Your task to perform on an android device: toggle translation in the chrome app Image 0: 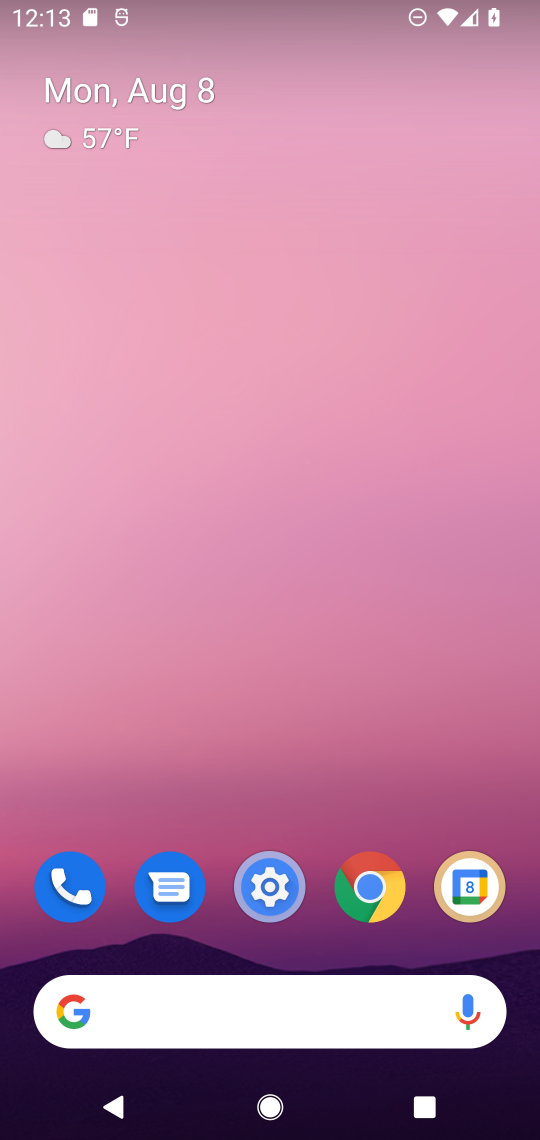
Step 0: click (370, 885)
Your task to perform on an android device: toggle translation in the chrome app Image 1: 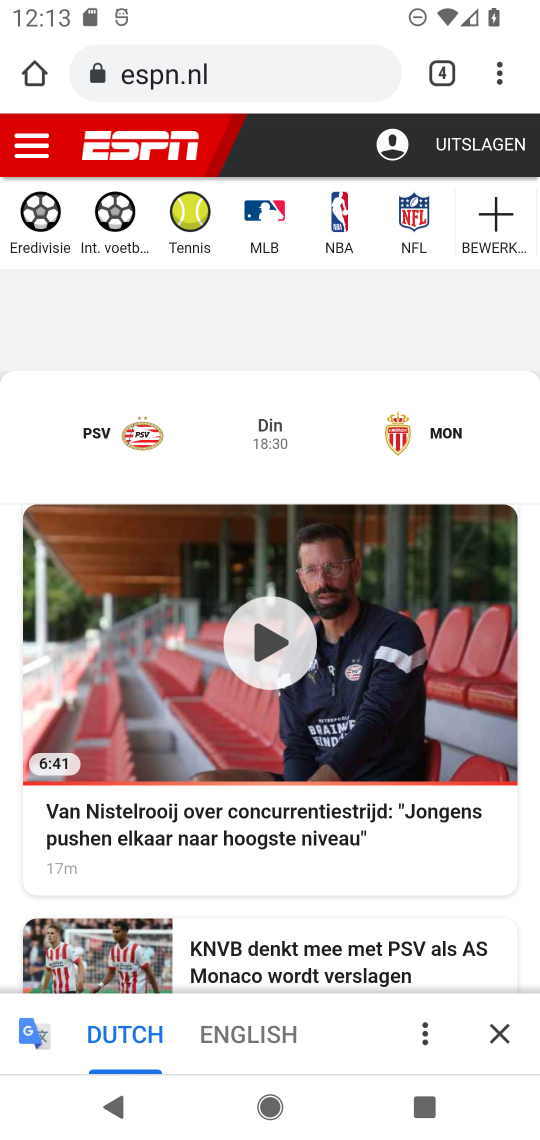
Step 1: click (503, 70)
Your task to perform on an android device: toggle translation in the chrome app Image 2: 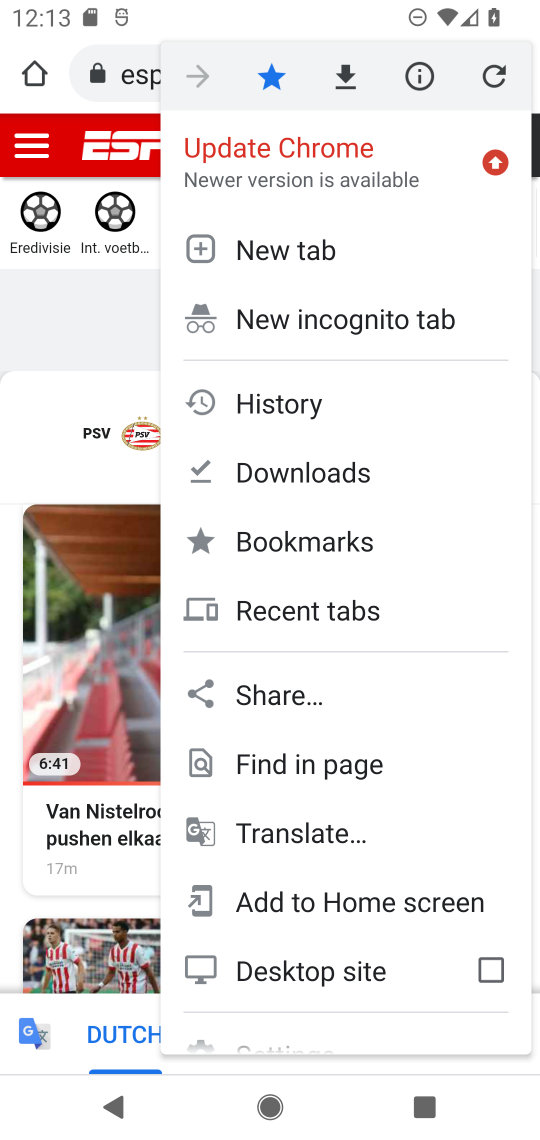
Step 2: drag from (364, 833) to (332, 314)
Your task to perform on an android device: toggle translation in the chrome app Image 3: 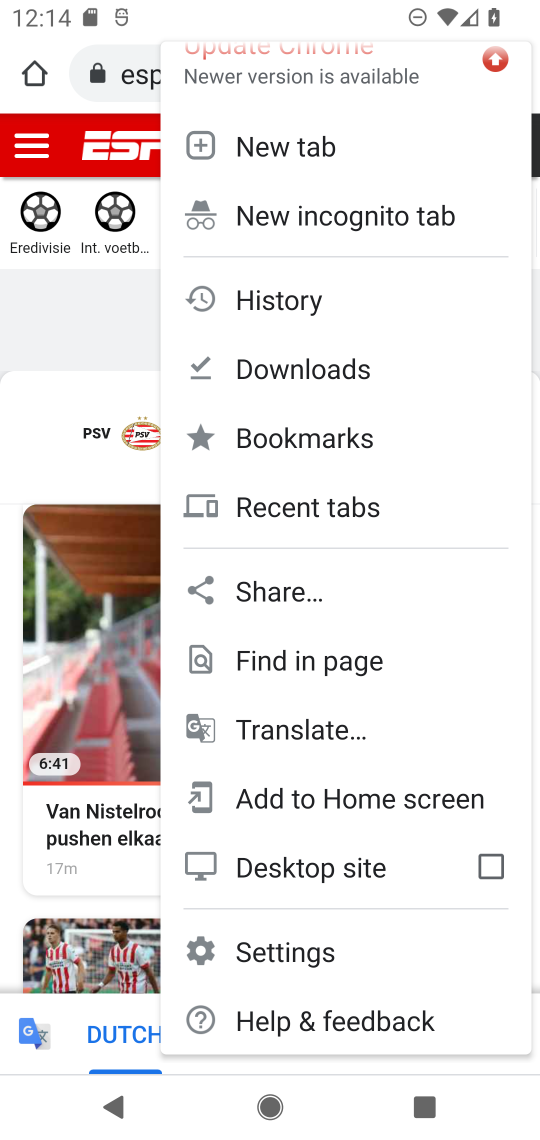
Step 3: click (298, 942)
Your task to perform on an android device: toggle translation in the chrome app Image 4: 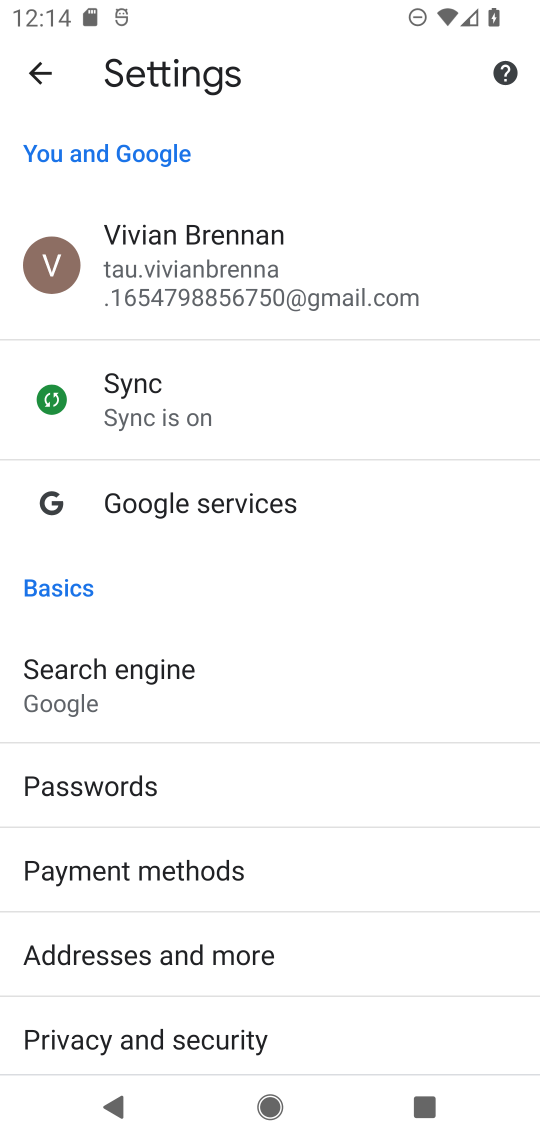
Step 4: drag from (338, 930) to (281, 321)
Your task to perform on an android device: toggle translation in the chrome app Image 5: 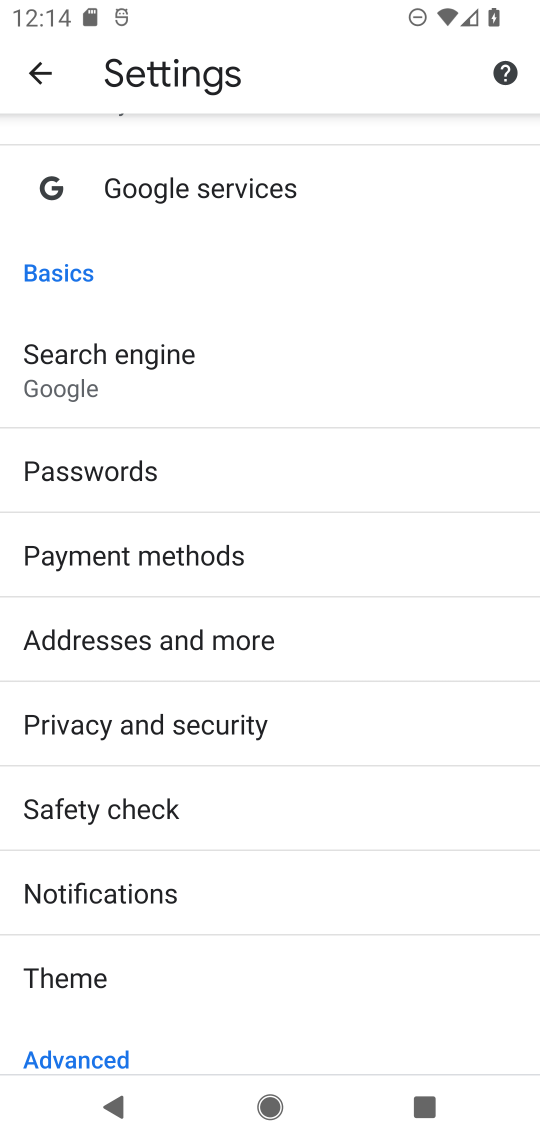
Step 5: drag from (358, 925) to (309, 385)
Your task to perform on an android device: toggle translation in the chrome app Image 6: 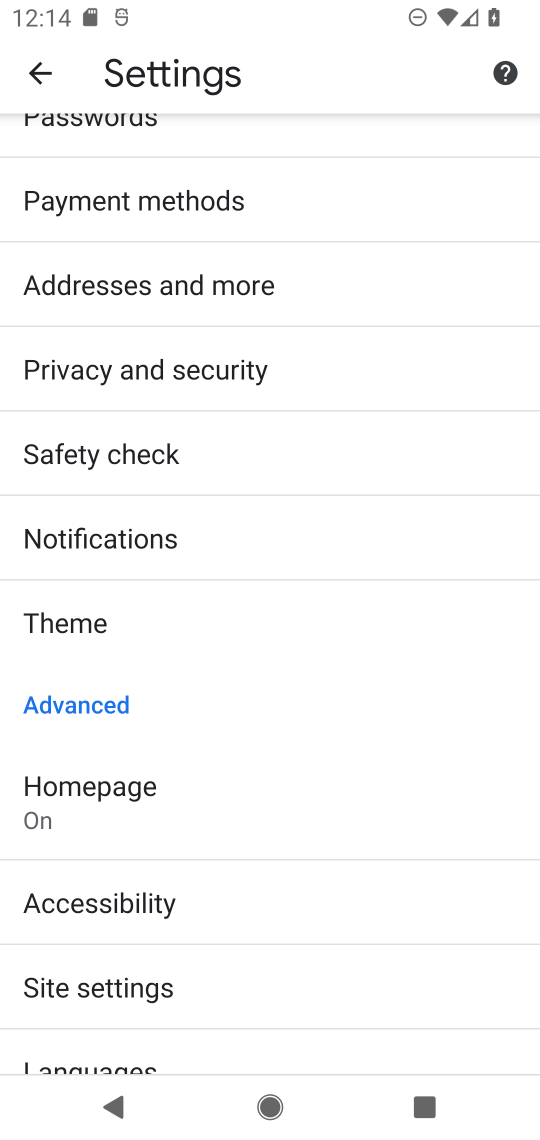
Step 6: click (94, 1058)
Your task to perform on an android device: toggle translation in the chrome app Image 7: 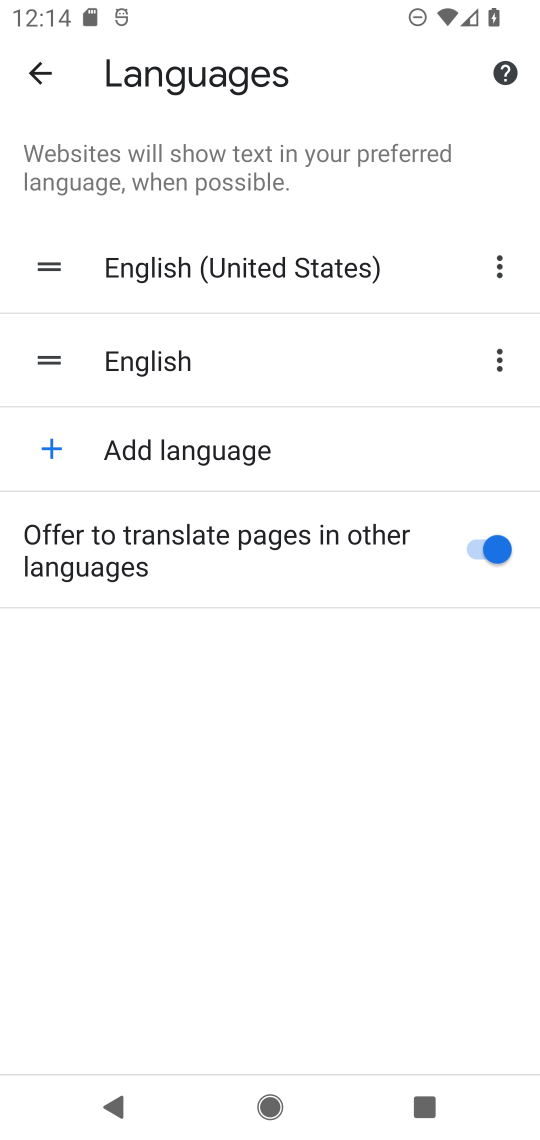
Step 7: click (488, 541)
Your task to perform on an android device: toggle translation in the chrome app Image 8: 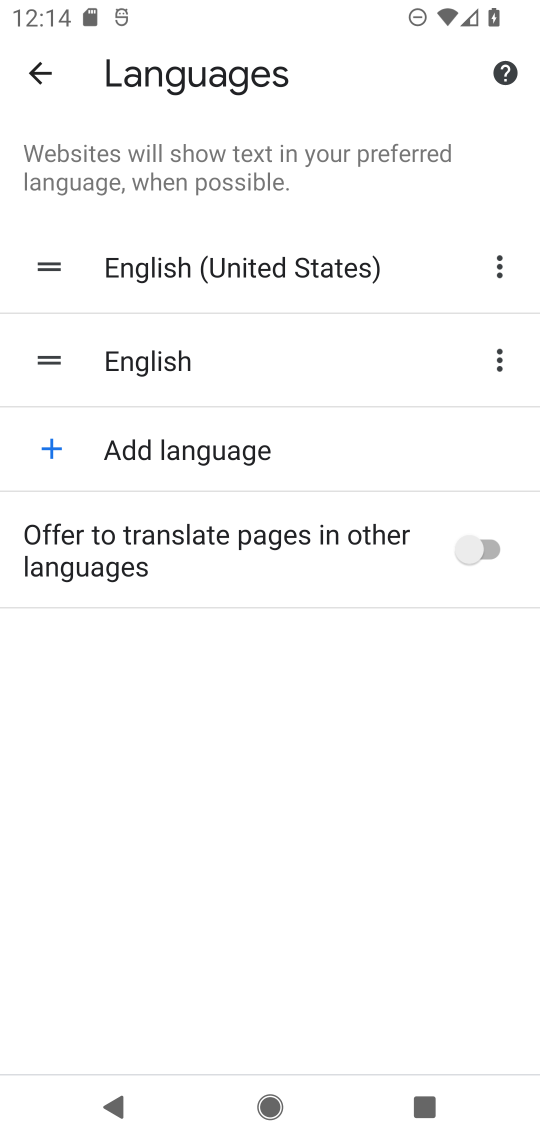
Step 8: task complete